Your task to perform on an android device: visit the assistant section in the google photos Image 0: 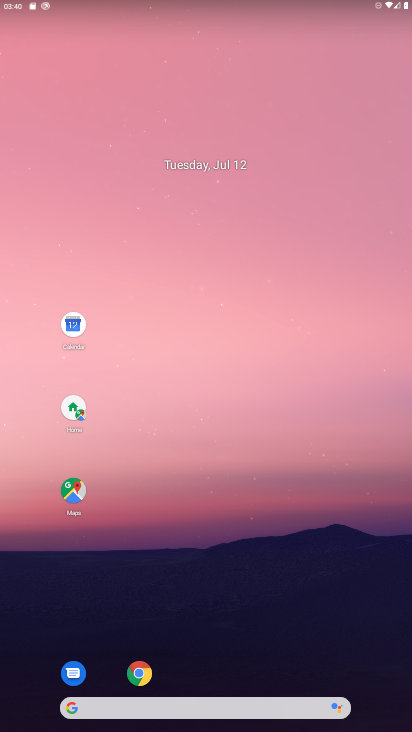
Step 0: click (221, 635)
Your task to perform on an android device: visit the assistant section in the google photos Image 1: 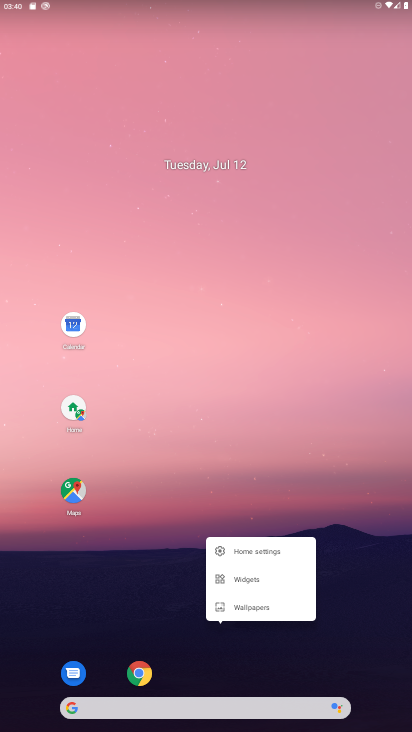
Step 1: click (344, 523)
Your task to perform on an android device: visit the assistant section in the google photos Image 2: 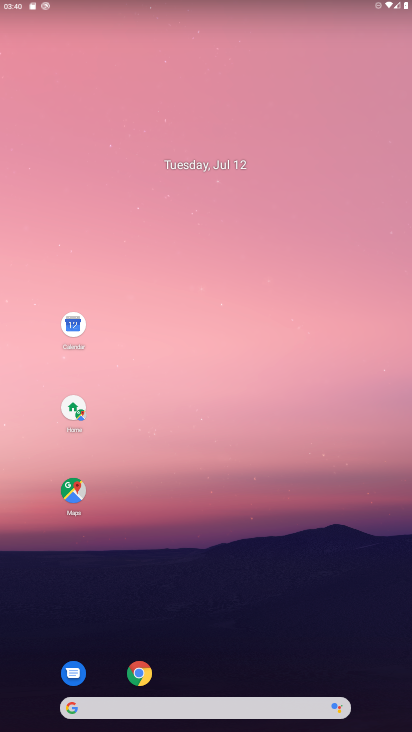
Step 2: drag from (264, 633) to (196, 187)
Your task to perform on an android device: visit the assistant section in the google photos Image 3: 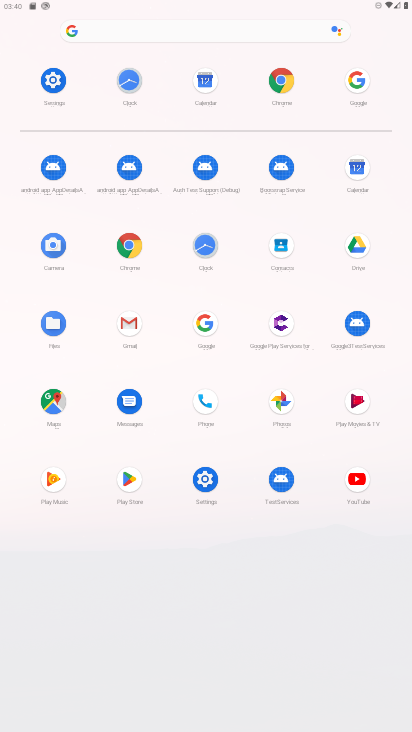
Step 3: click (287, 399)
Your task to perform on an android device: visit the assistant section in the google photos Image 4: 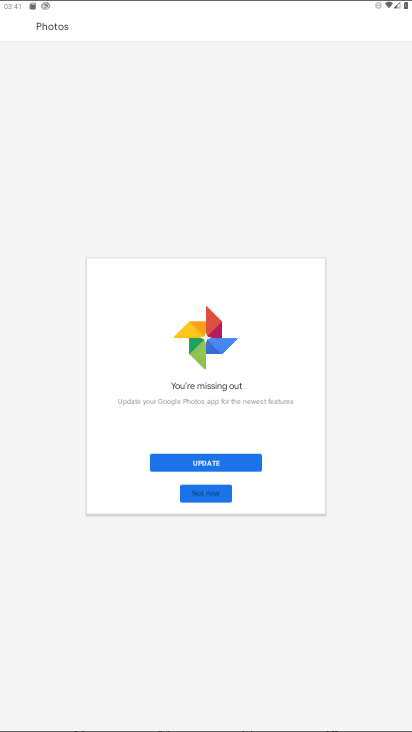
Step 4: click (243, 705)
Your task to perform on an android device: visit the assistant section in the google photos Image 5: 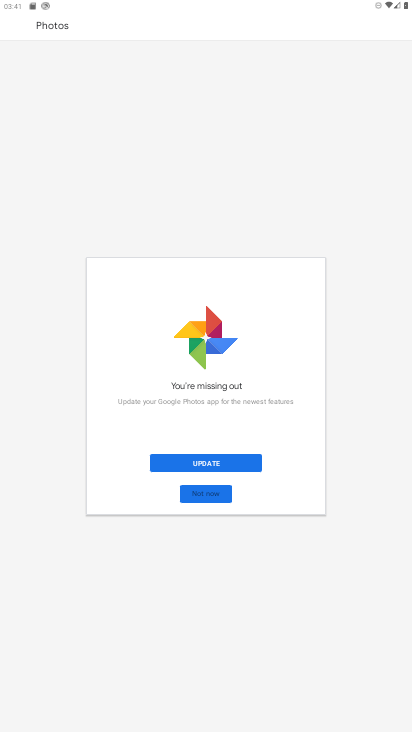
Step 5: click (201, 494)
Your task to perform on an android device: visit the assistant section in the google photos Image 6: 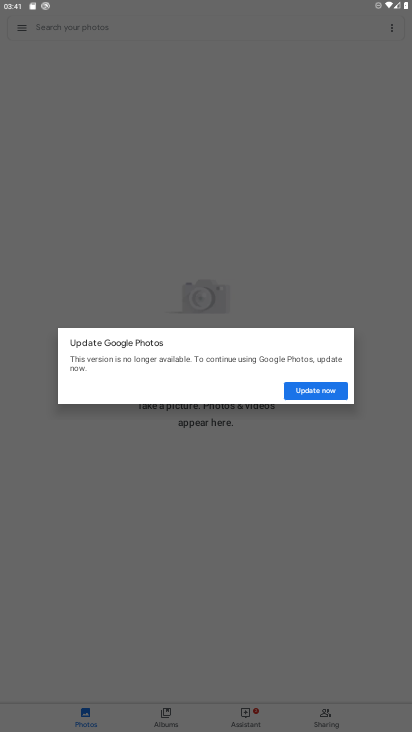
Step 6: click (314, 419)
Your task to perform on an android device: visit the assistant section in the google photos Image 7: 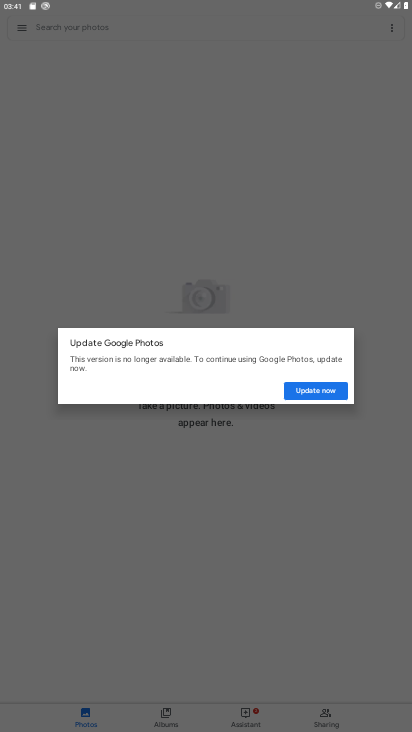
Step 7: click (307, 381)
Your task to perform on an android device: visit the assistant section in the google photos Image 8: 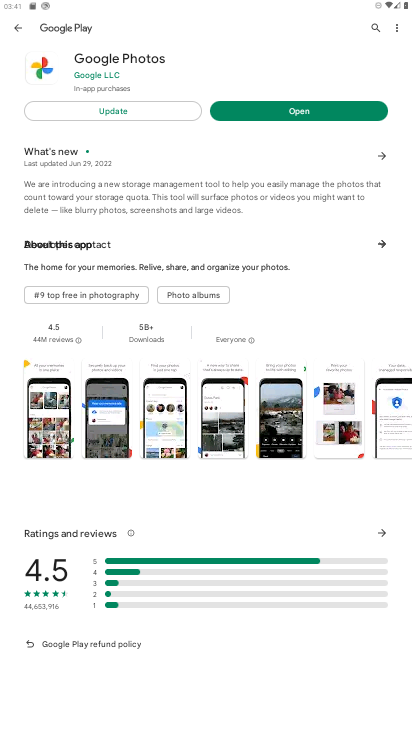
Step 8: press back button
Your task to perform on an android device: visit the assistant section in the google photos Image 9: 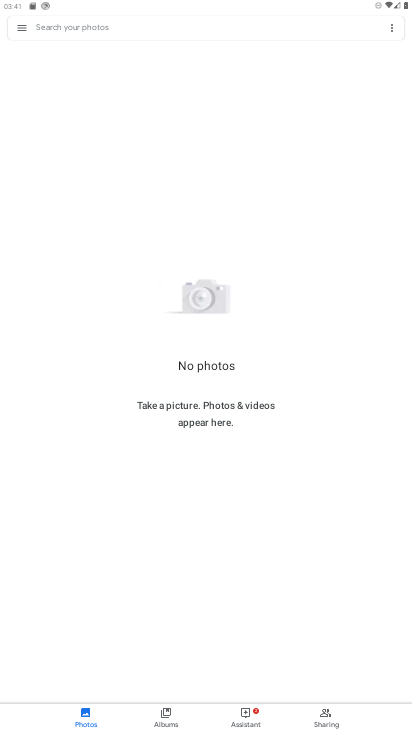
Step 9: click (232, 717)
Your task to perform on an android device: visit the assistant section in the google photos Image 10: 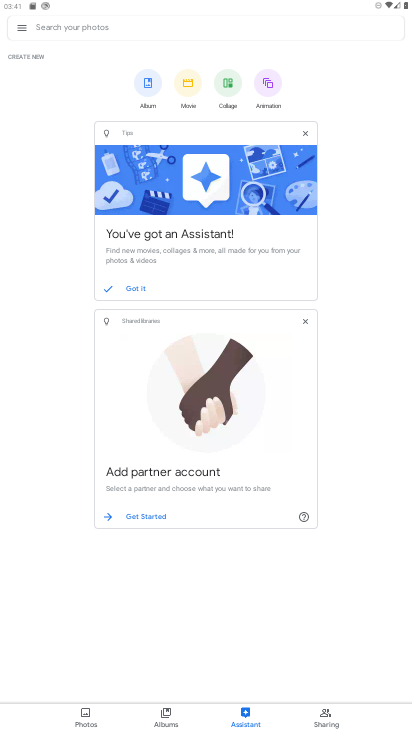
Step 10: task complete